Your task to perform on an android device: Add "dell xps" to the cart on ebay.com, then select checkout. Image 0: 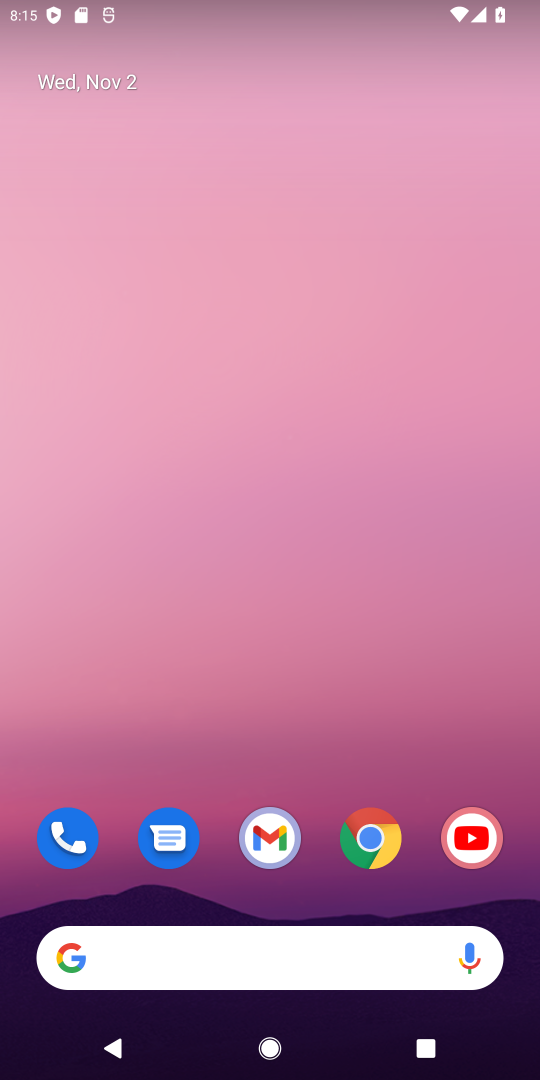
Step 0: click (371, 849)
Your task to perform on an android device: Add "dell xps" to the cart on ebay.com, then select checkout. Image 1: 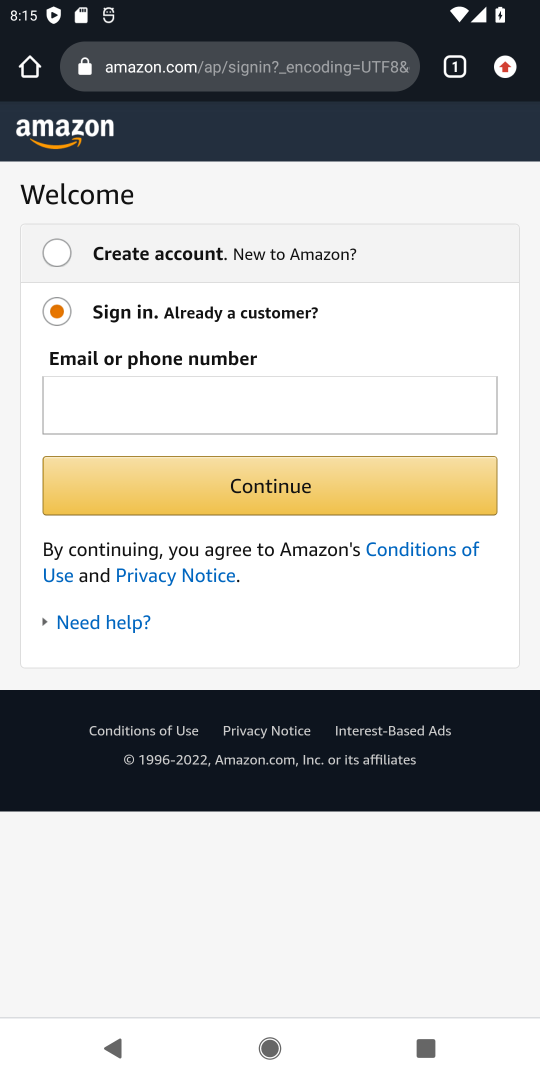
Step 1: click (277, 67)
Your task to perform on an android device: Add "dell xps" to the cart on ebay.com, then select checkout. Image 2: 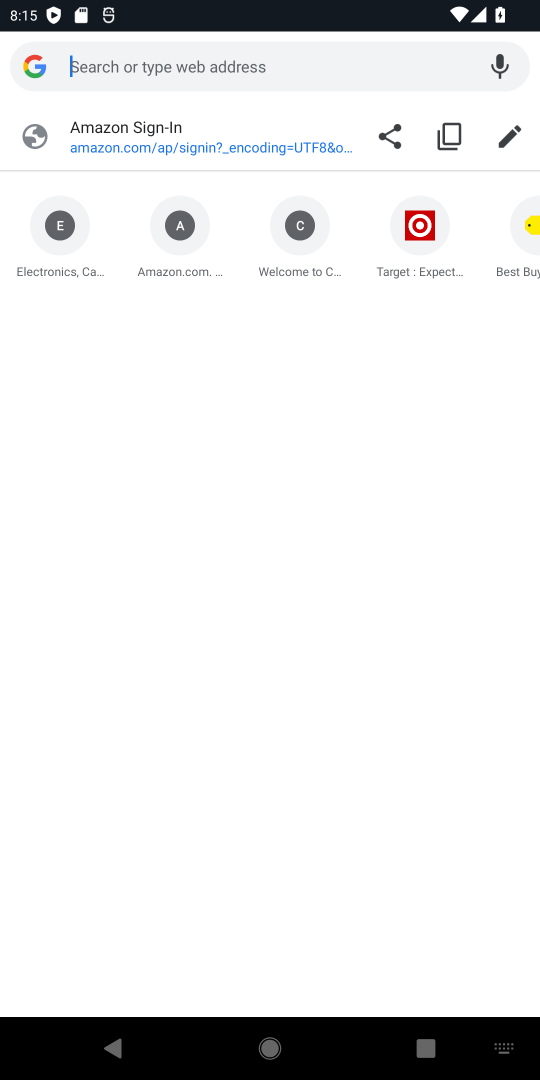
Step 2: type "ebay.com"
Your task to perform on an android device: Add "dell xps" to the cart on ebay.com, then select checkout. Image 3: 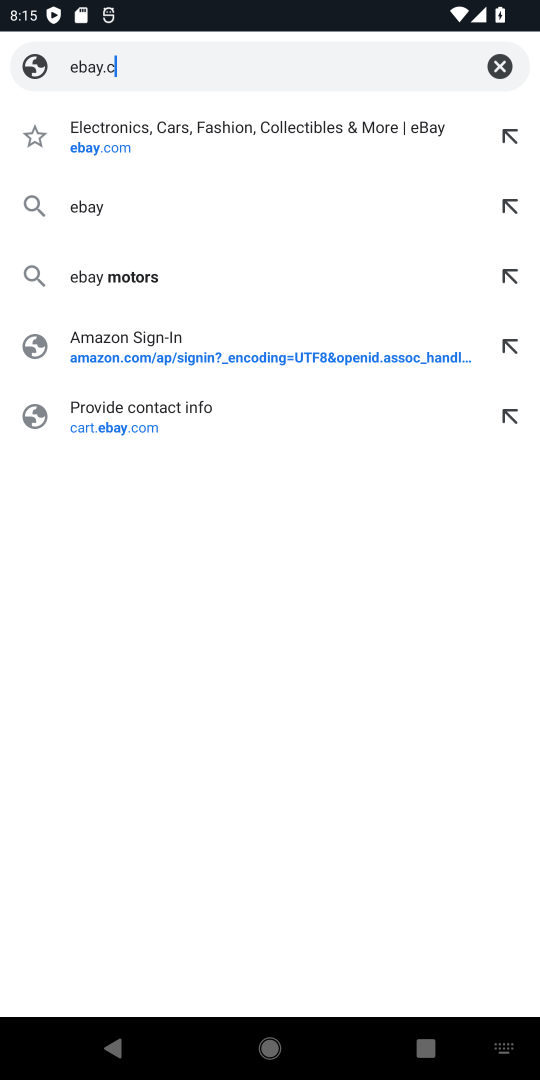
Step 3: type ""
Your task to perform on an android device: Add "dell xps" to the cart on ebay.com, then select checkout. Image 4: 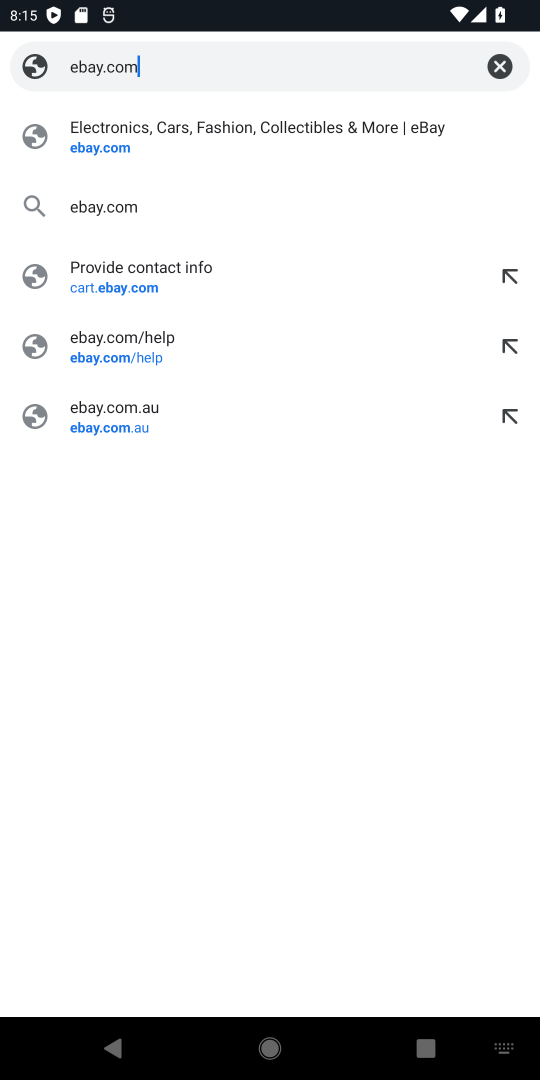
Step 4: press enter
Your task to perform on an android device: Add "dell xps" to the cart on ebay.com, then select checkout. Image 5: 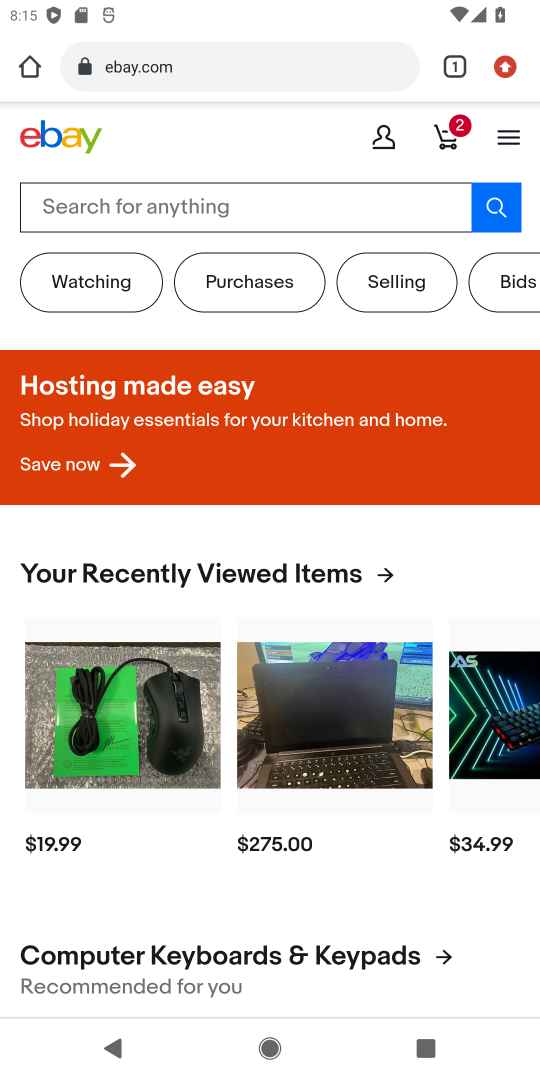
Step 5: click (219, 181)
Your task to perform on an android device: Add "dell xps" to the cart on ebay.com, then select checkout. Image 6: 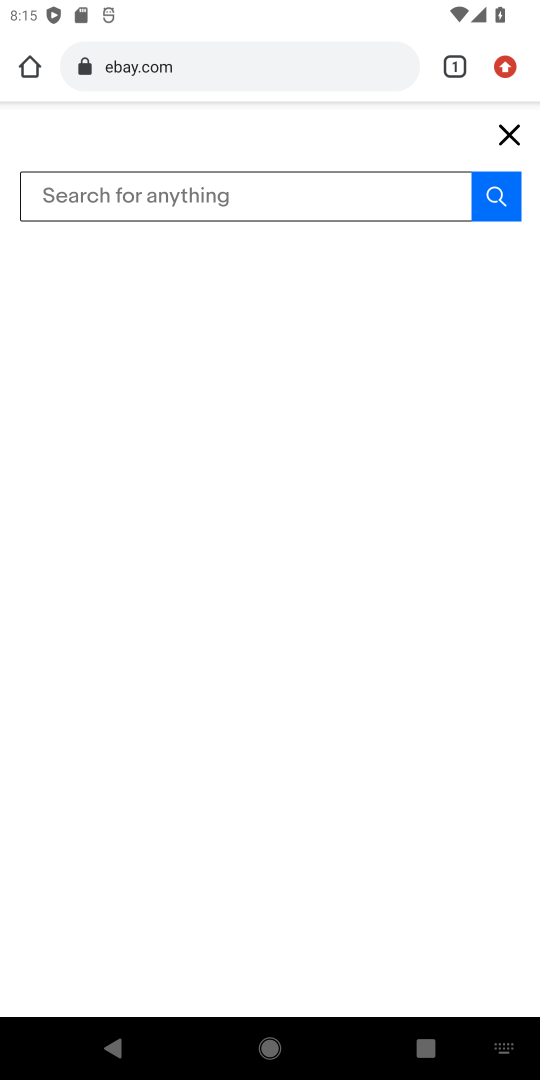
Step 6: type "dell xps"
Your task to perform on an android device: Add "dell xps" to the cart on ebay.com, then select checkout. Image 7: 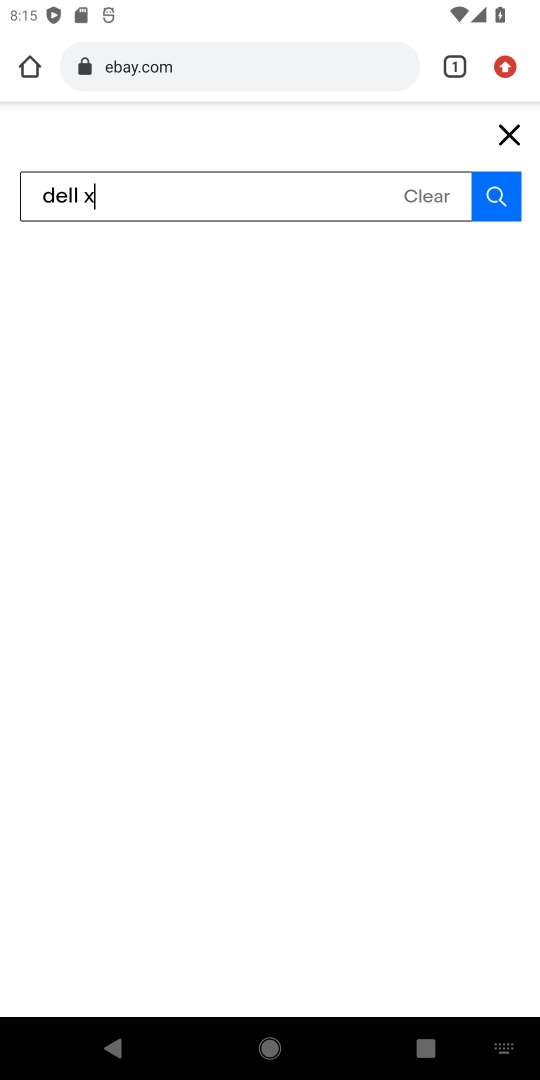
Step 7: type ""
Your task to perform on an android device: Add "dell xps" to the cart on ebay.com, then select checkout. Image 8: 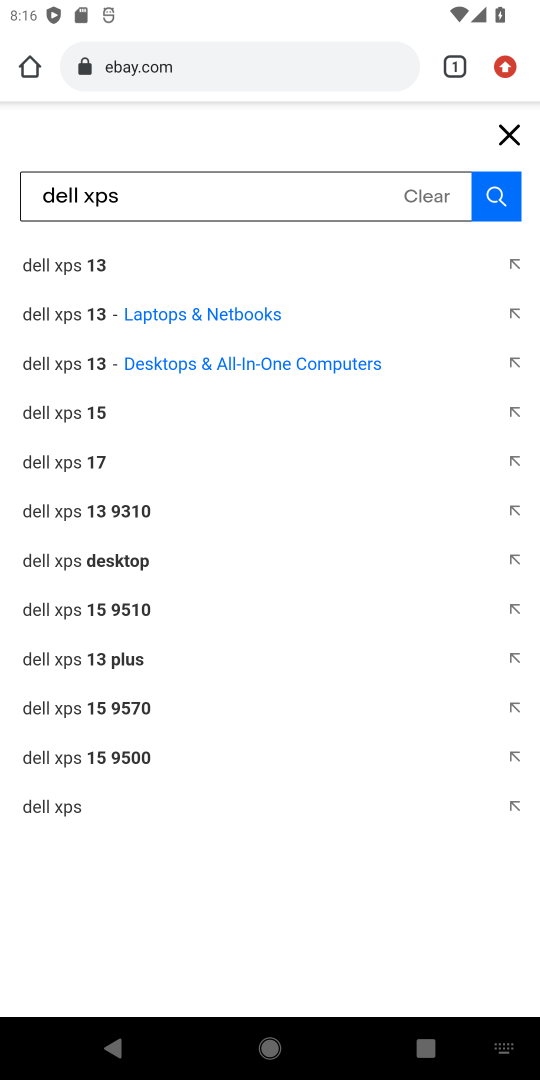
Step 8: click (502, 196)
Your task to perform on an android device: Add "dell xps" to the cart on ebay.com, then select checkout. Image 9: 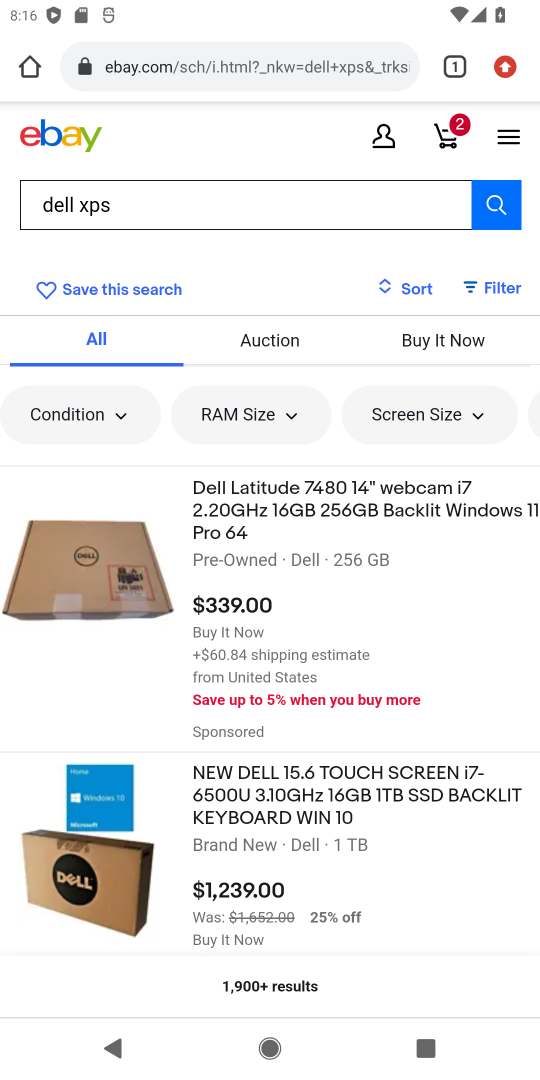
Step 9: drag from (404, 910) to (447, 525)
Your task to perform on an android device: Add "dell xps" to the cart on ebay.com, then select checkout. Image 10: 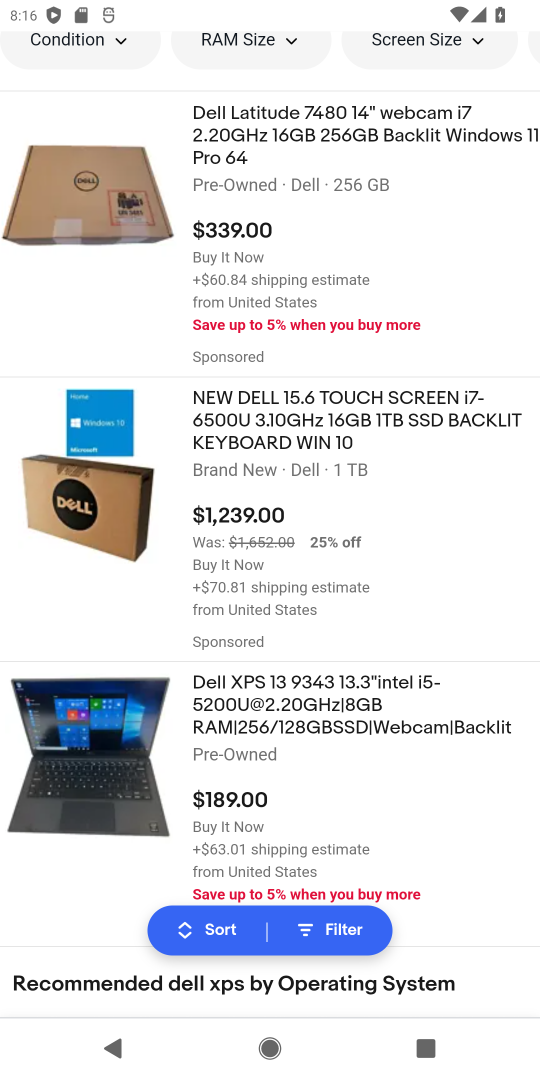
Step 10: click (365, 709)
Your task to perform on an android device: Add "dell xps" to the cart on ebay.com, then select checkout. Image 11: 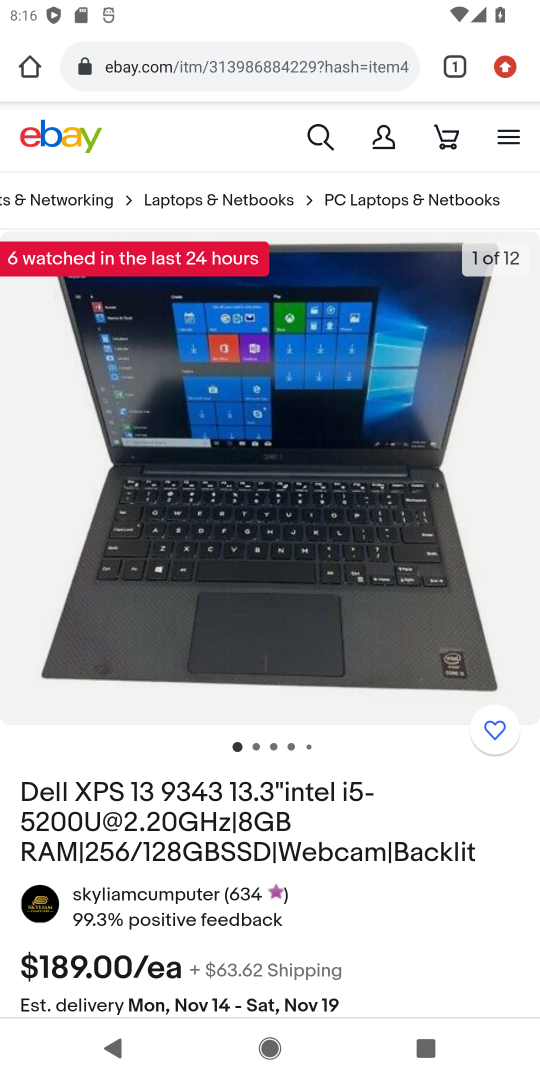
Step 11: drag from (450, 939) to (426, 375)
Your task to perform on an android device: Add "dell xps" to the cart on ebay.com, then select checkout. Image 12: 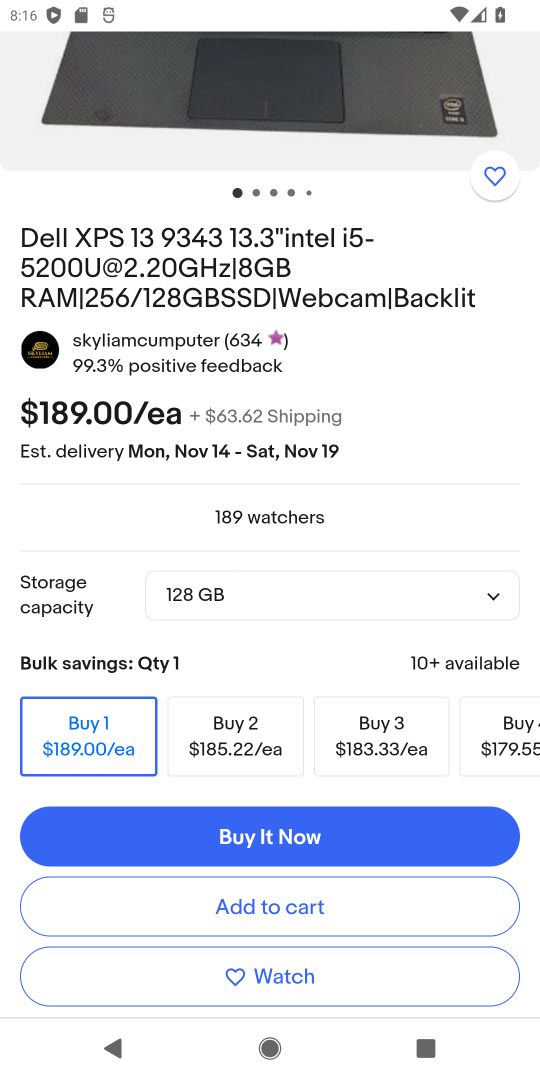
Step 12: click (356, 914)
Your task to perform on an android device: Add "dell xps" to the cart on ebay.com, then select checkout. Image 13: 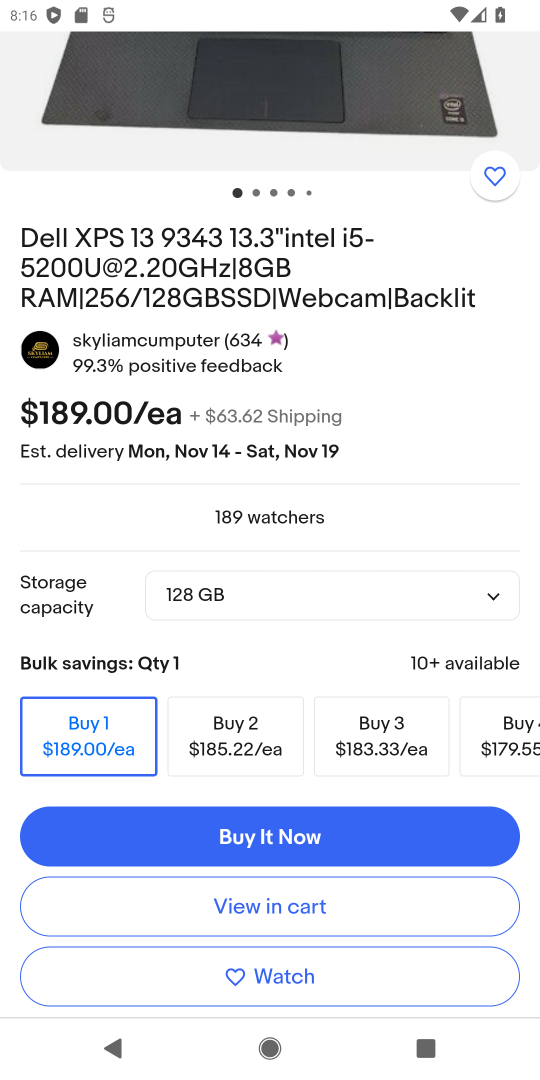
Step 13: click (322, 901)
Your task to perform on an android device: Add "dell xps" to the cart on ebay.com, then select checkout. Image 14: 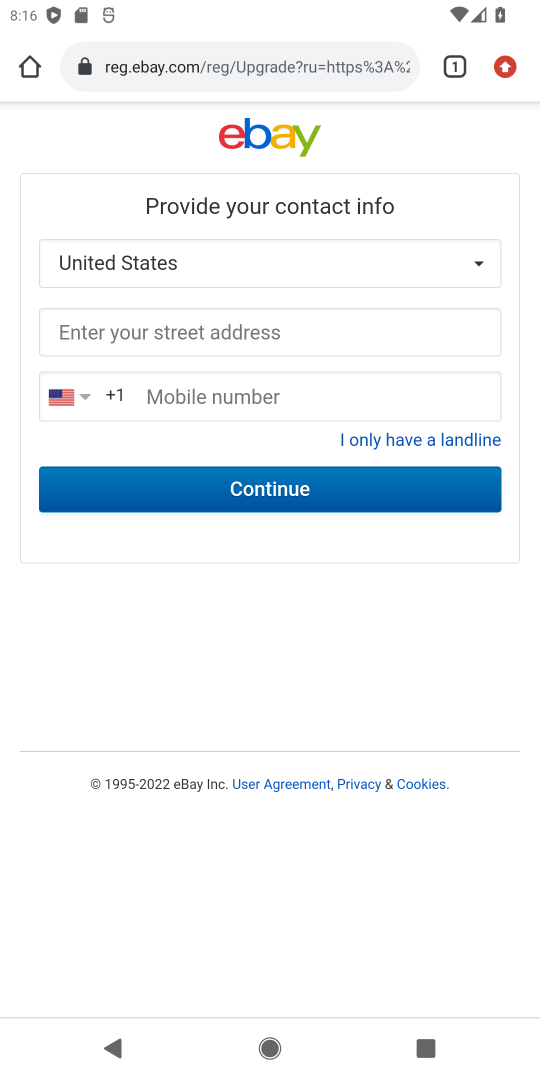
Step 14: task complete